Your task to perform on an android device: Open Yahoo.com Image 0: 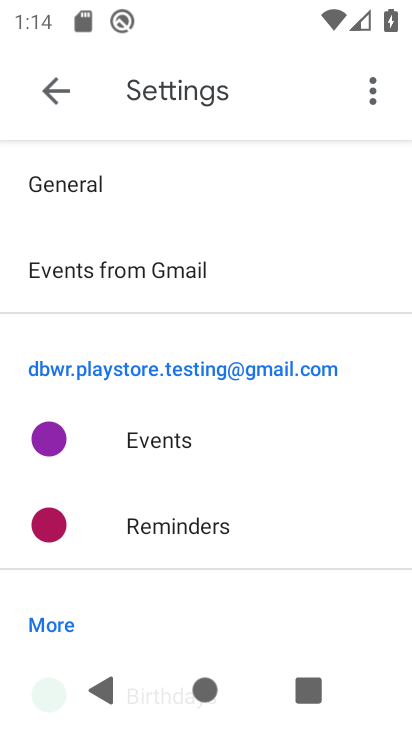
Step 0: press home button
Your task to perform on an android device: Open Yahoo.com Image 1: 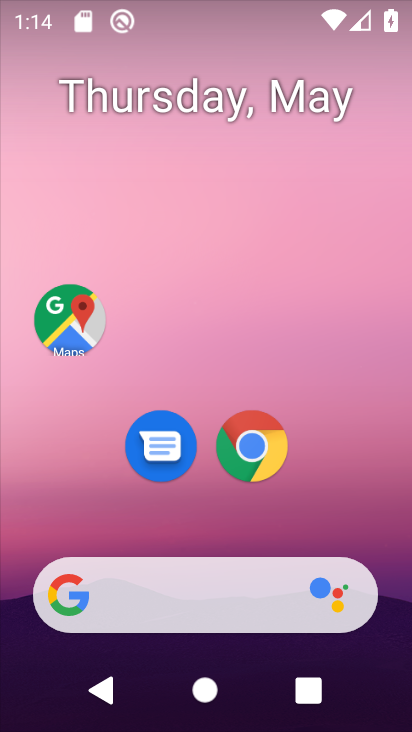
Step 1: click (246, 459)
Your task to perform on an android device: Open Yahoo.com Image 2: 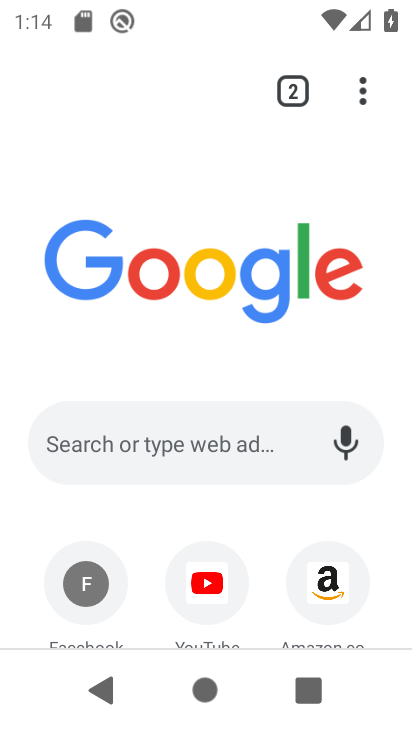
Step 2: drag from (217, 511) to (234, 276)
Your task to perform on an android device: Open Yahoo.com Image 3: 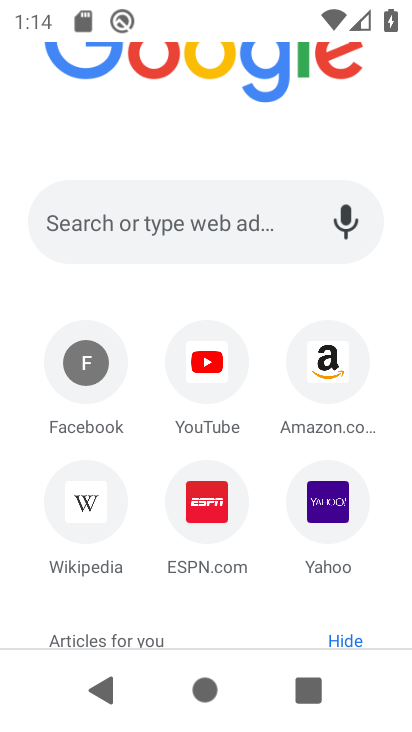
Step 3: click (328, 501)
Your task to perform on an android device: Open Yahoo.com Image 4: 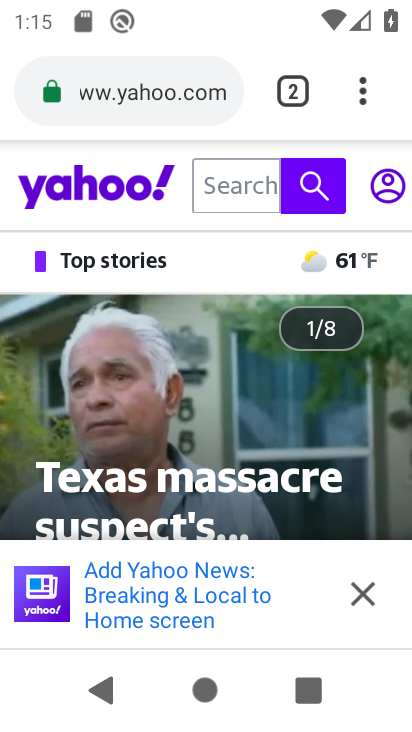
Step 4: task complete